Your task to perform on an android device: View the shopping cart on newegg.com. Add "macbook pro" to the cart on newegg.com Image 0: 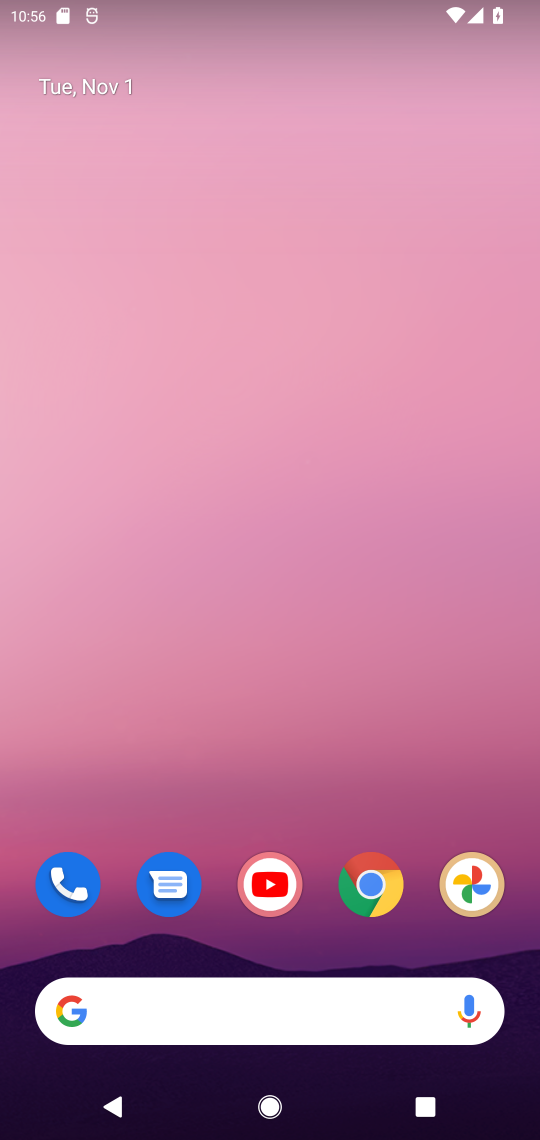
Step 0: click (368, 906)
Your task to perform on an android device: View the shopping cart on newegg.com. Add "macbook pro" to the cart on newegg.com Image 1: 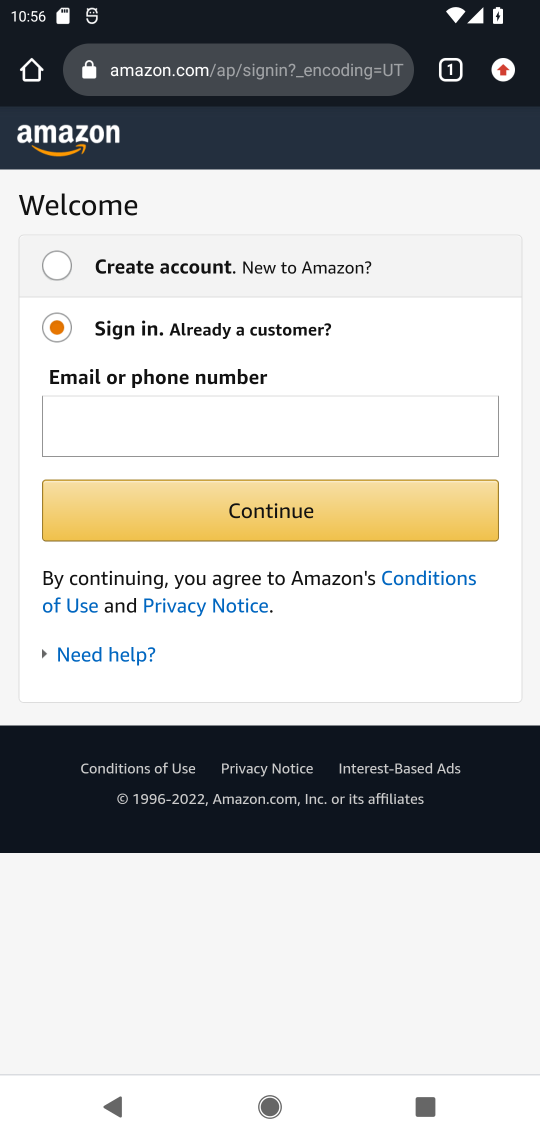
Step 1: click (168, 85)
Your task to perform on an android device: View the shopping cart on newegg.com. Add "macbook pro" to the cart on newegg.com Image 2: 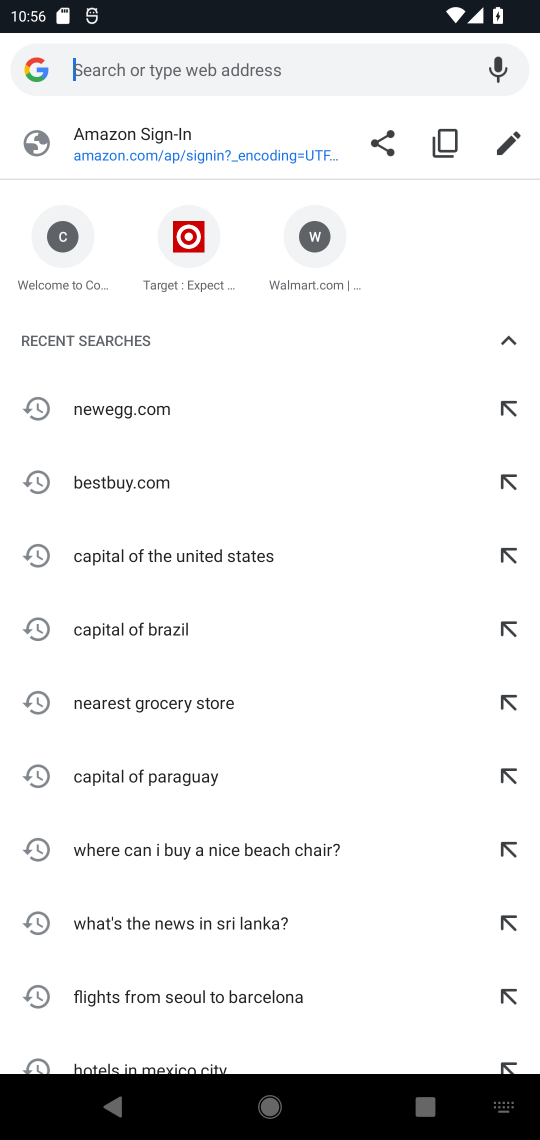
Step 2: type "newegg.com"
Your task to perform on an android device: View the shopping cart on newegg.com. Add "macbook pro" to the cart on newegg.com Image 3: 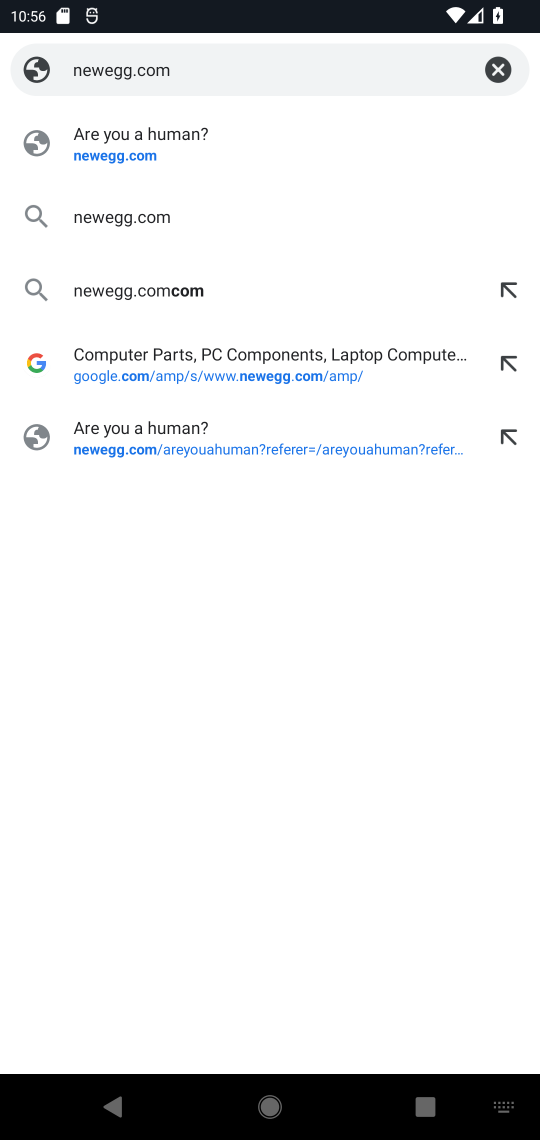
Step 3: click (125, 212)
Your task to perform on an android device: View the shopping cart on newegg.com. Add "macbook pro" to the cart on newegg.com Image 4: 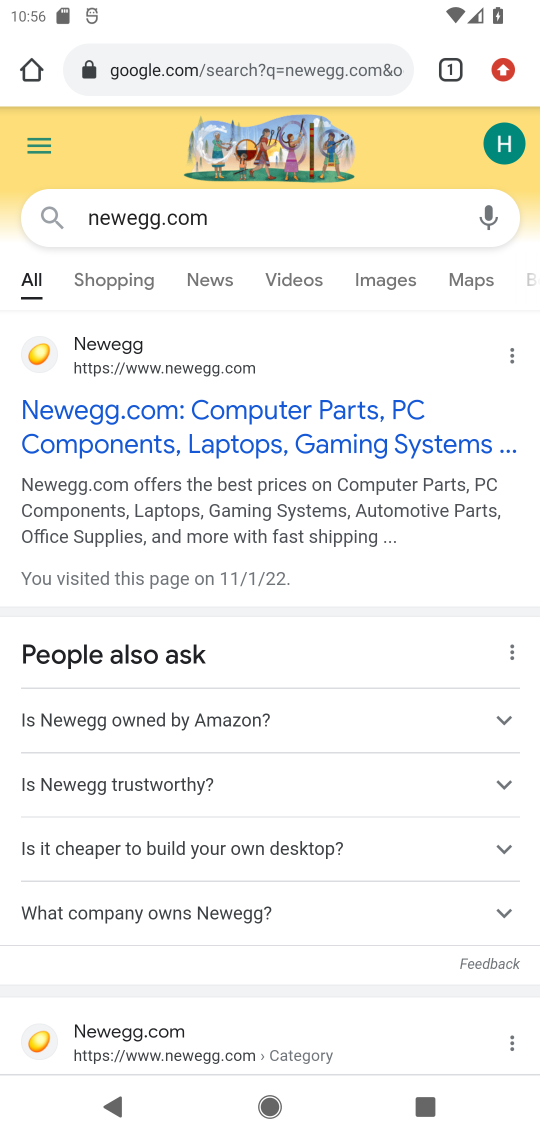
Step 4: click (92, 376)
Your task to perform on an android device: View the shopping cart on newegg.com. Add "macbook pro" to the cart on newegg.com Image 5: 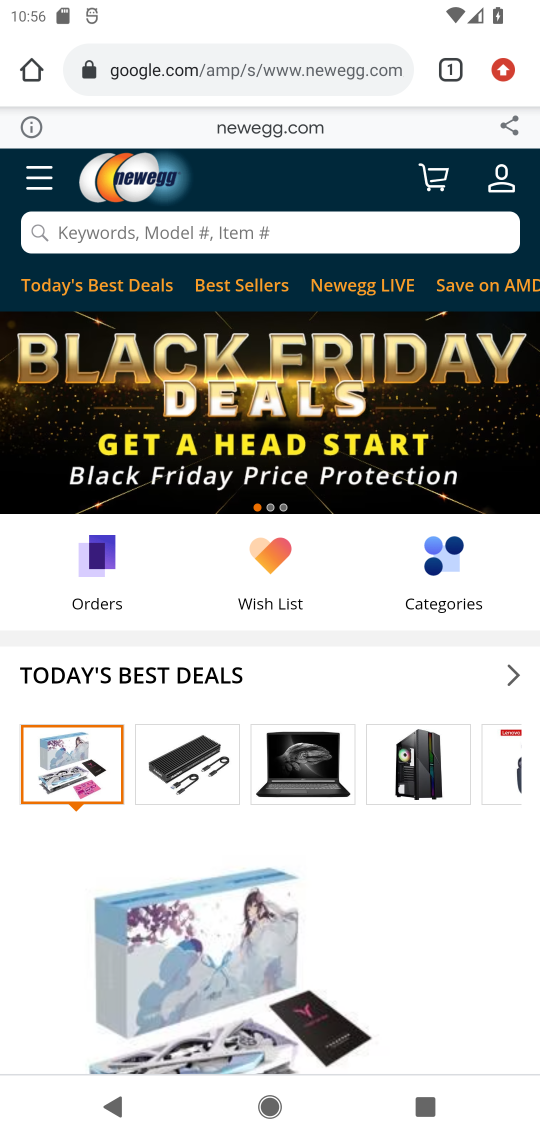
Step 5: click (132, 226)
Your task to perform on an android device: View the shopping cart on newegg.com. Add "macbook pro" to the cart on newegg.com Image 6: 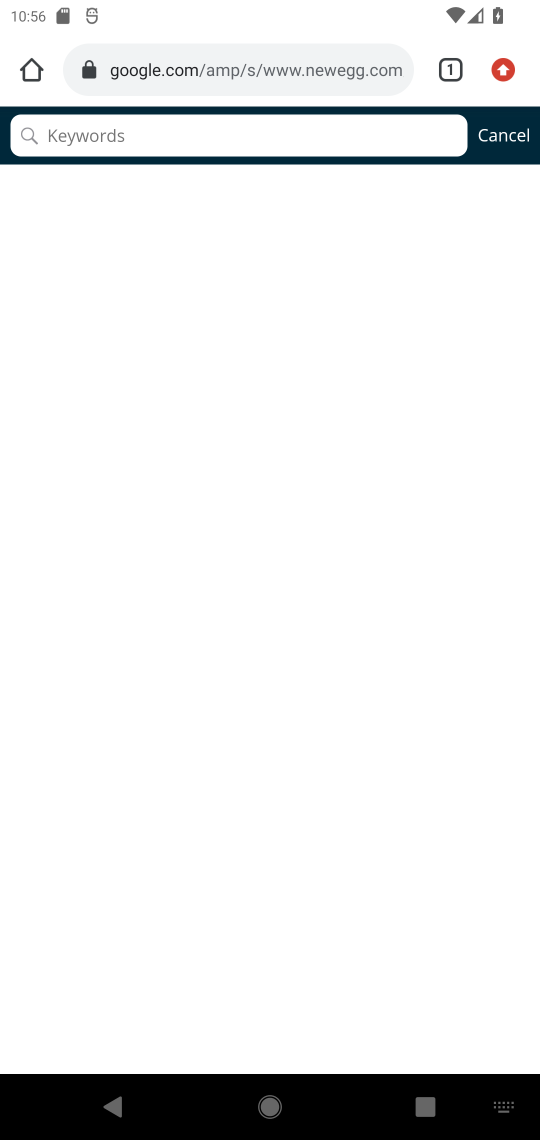
Step 6: type "macbook pro"
Your task to perform on an android device: View the shopping cart on newegg.com. Add "macbook pro" to the cart on newegg.com Image 7: 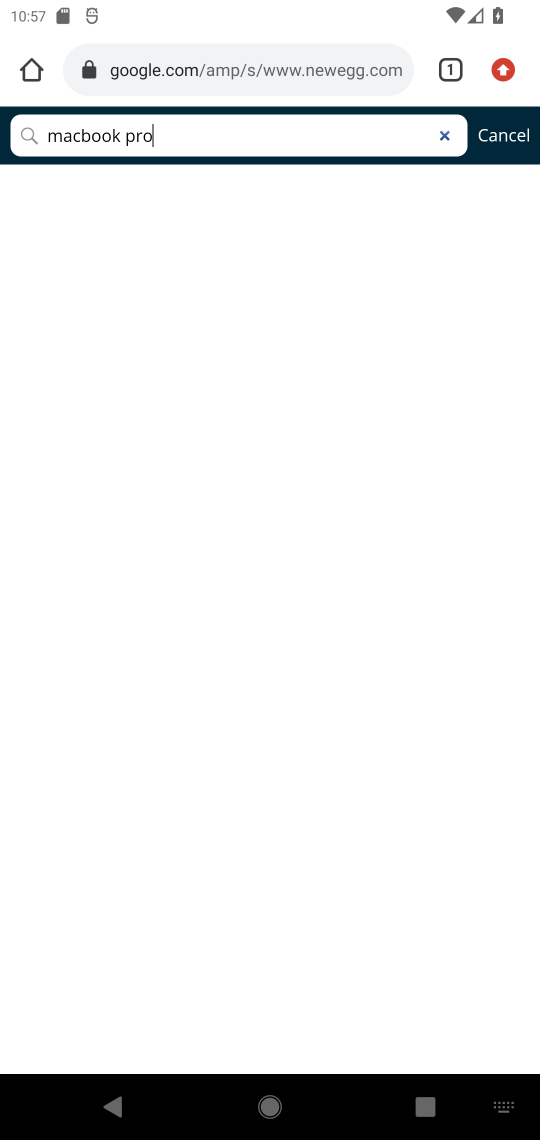
Step 7: click (34, 126)
Your task to perform on an android device: View the shopping cart on newegg.com. Add "macbook pro" to the cart on newegg.com Image 8: 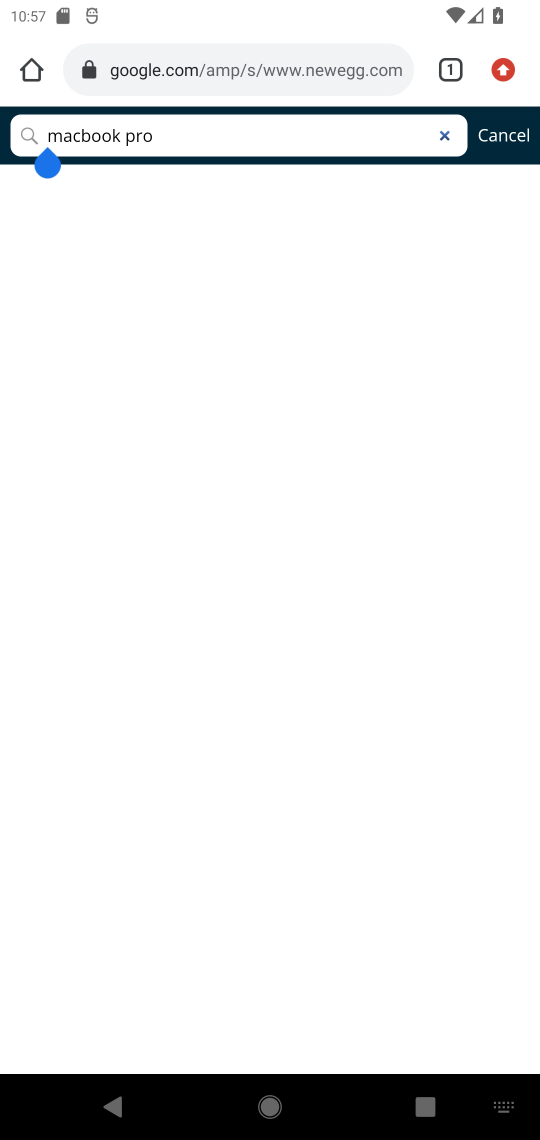
Step 8: task complete